Your task to perform on an android device: Open battery settings Image 0: 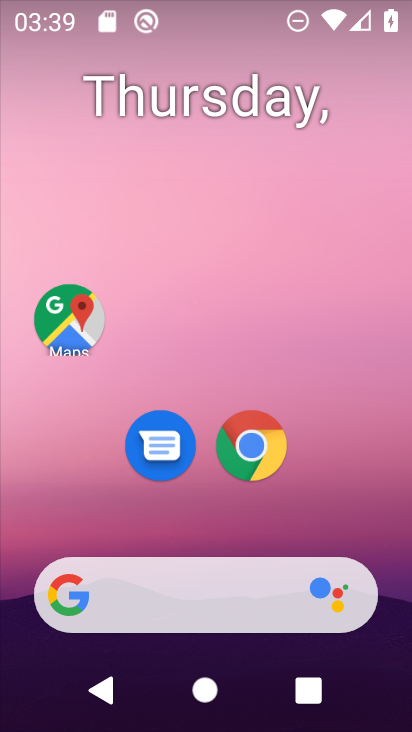
Step 0: drag from (352, 545) to (327, 2)
Your task to perform on an android device: Open battery settings Image 1: 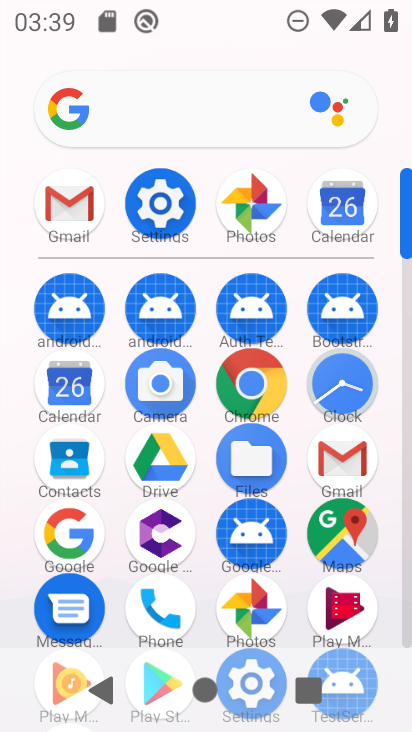
Step 1: click (152, 213)
Your task to perform on an android device: Open battery settings Image 2: 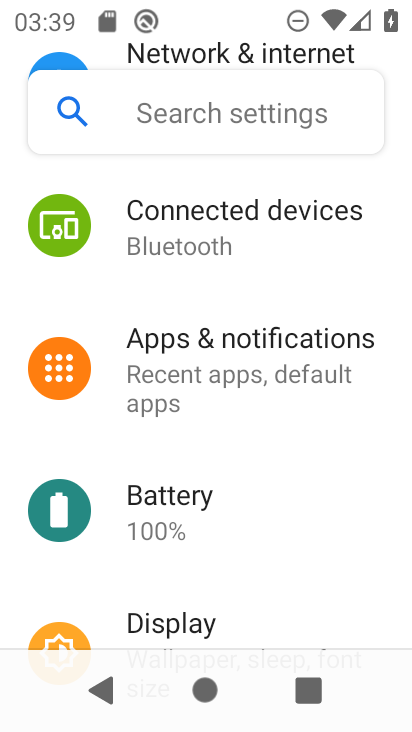
Step 2: click (160, 506)
Your task to perform on an android device: Open battery settings Image 3: 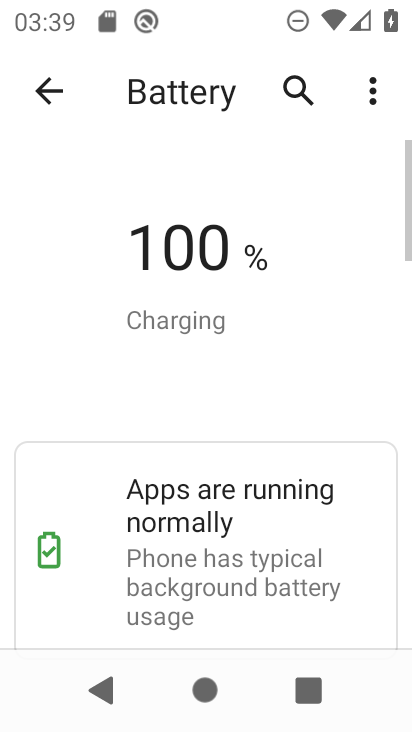
Step 3: task complete